Your task to perform on an android device: Open privacy settings Image 0: 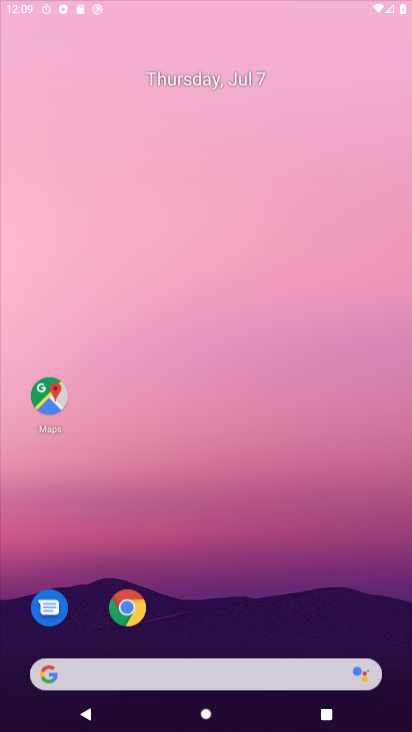
Step 0: click (320, 80)
Your task to perform on an android device: Open privacy settings Image 1: 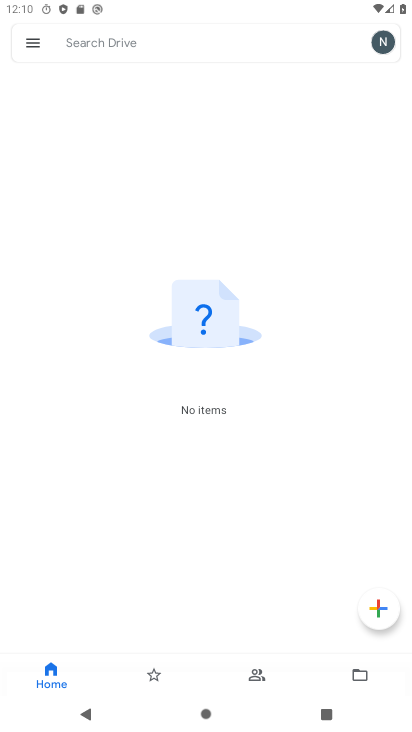
Step 1: press home button
Your task to perform on an android device: Open privacy settings Image 2: 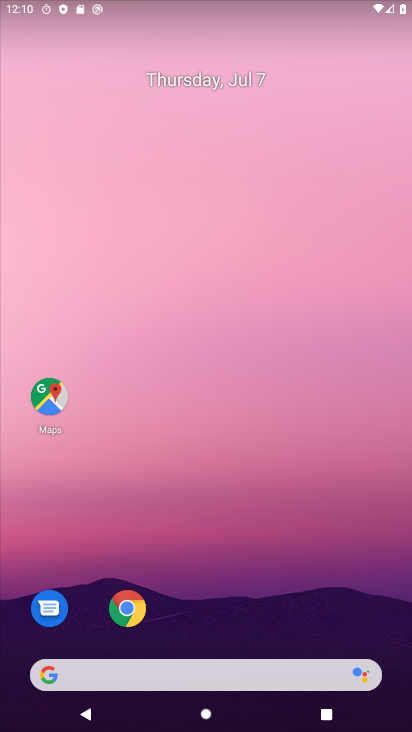
Step 2: drag from (211, 663) to (214, 44)
Your task to perform on an android device: Open privacy settings Image 3: 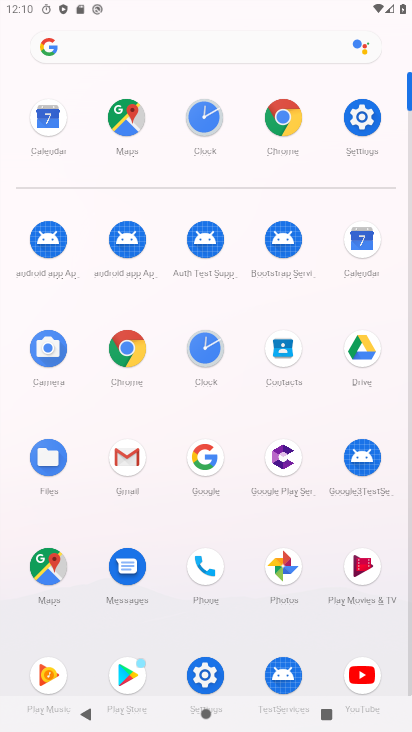
Step 3: click (356, 127)
Your task to perform on an android device: Open privacy settings Image 4: 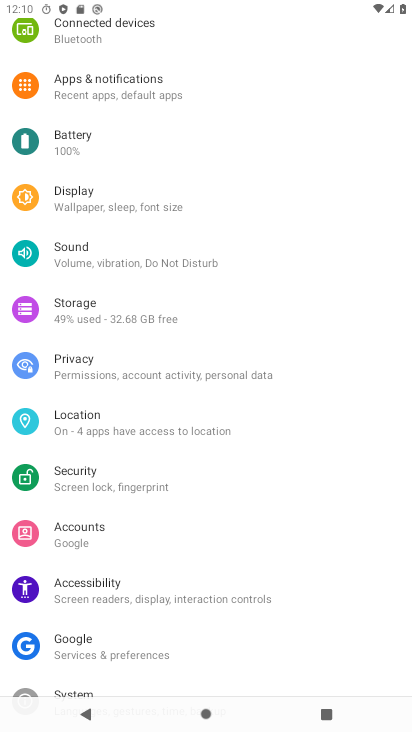
Step 4: click (83, 356)
Your task to perform on an android device: Open privacy settings Image 5: 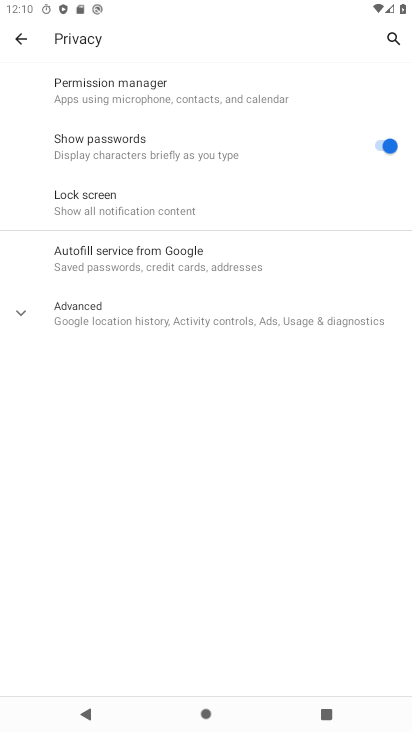
Step 5: task complete